Your task to perform on an android device: What's the weather going to be this weekend? Image 0: 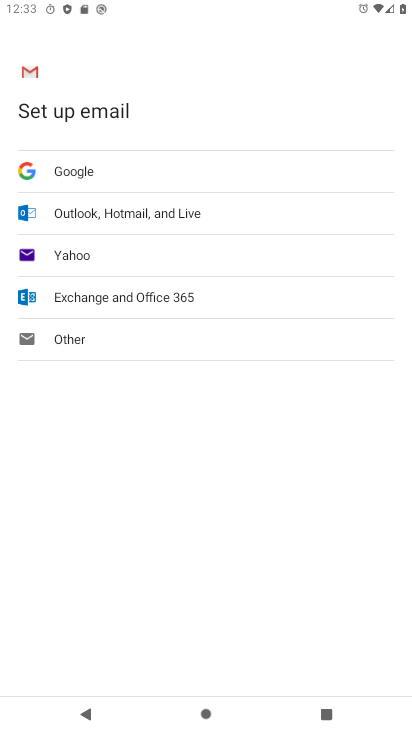
Step 0: press home button
Your task to perform on an android device: What's the weather going to be this weekend? Image 1: 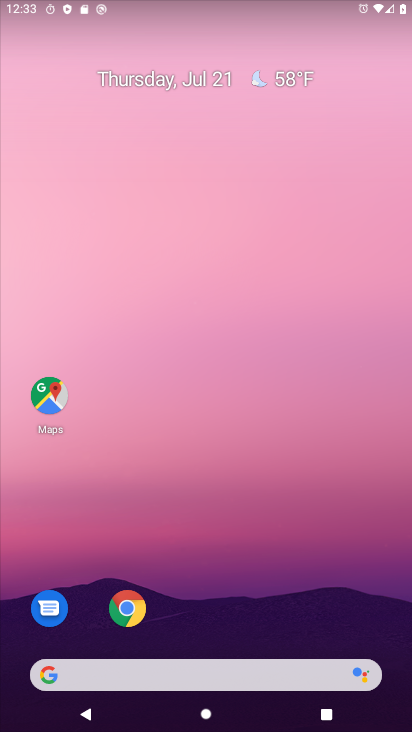
Step 1: drag from (209, 638) to (216, 6)
Your task to perform on an android device: What's the weather going to be this weekend? Image 2: 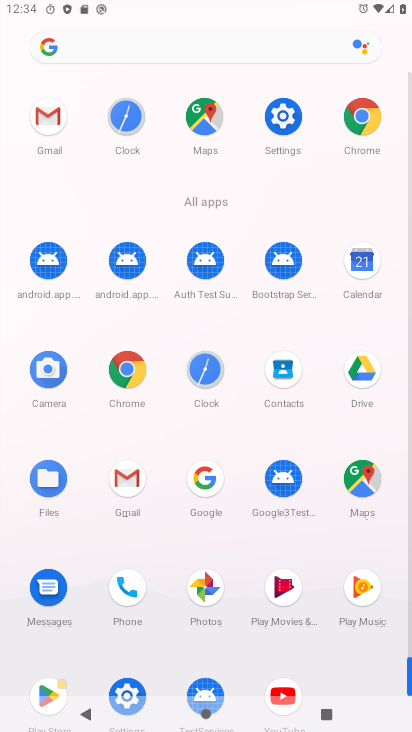
Step 2: press home button
Your task to perform on an android device: What's the weather going to be this weekend? Image 3: 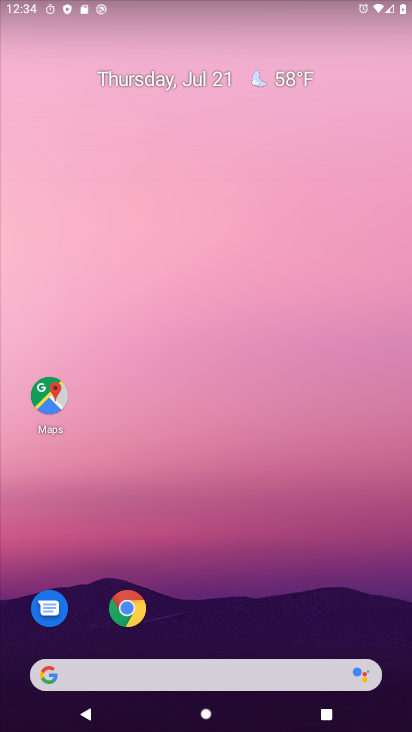
Step 3: click (292, 80)
Your task to perform on an android device: What's the weather going to be this weekend? Image 4: 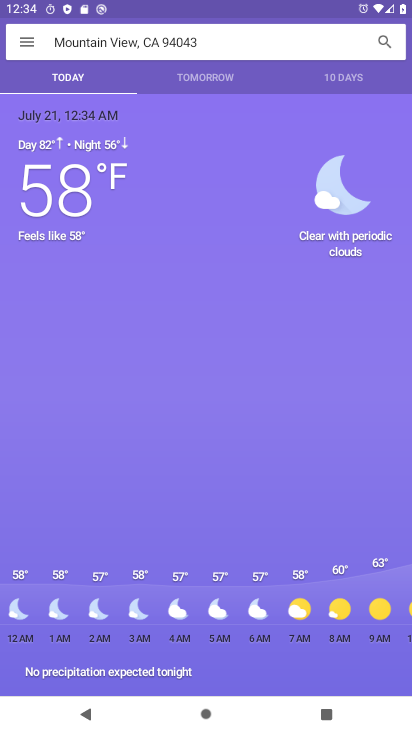
Step 4: click (347, 79)
Your task to perform on an android device: What's the weather going to be this weekend? Image 5: 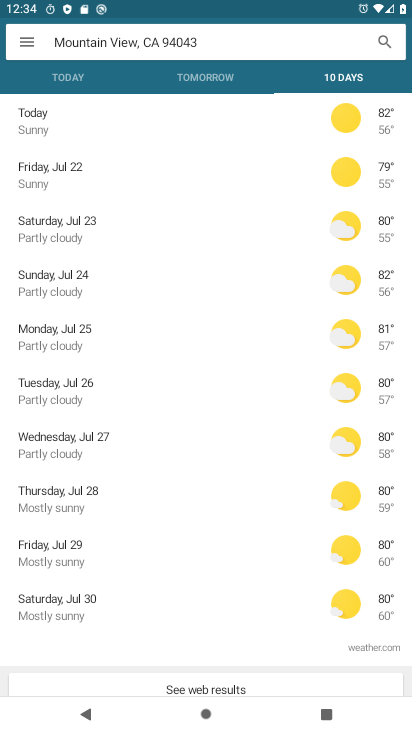
Step 5: click (77, 224)
Your task to perform on an android device: What's the weather going to be this weekend? Image 6: 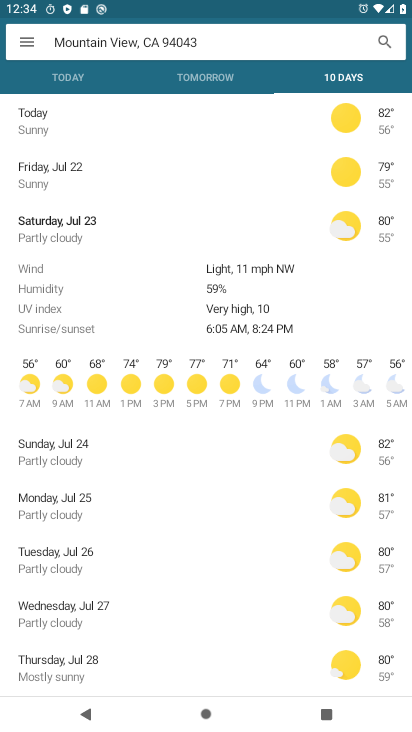
Step 6: click (92, 451)
Your task to perform on an android device: What's the weather going to be this weekend? Image 7: 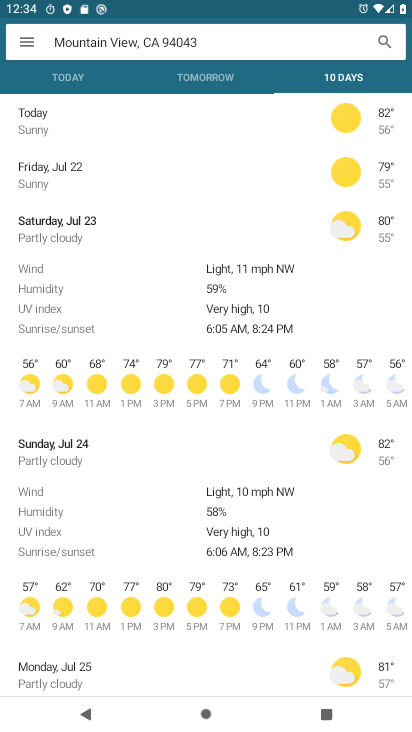
Step 7: task complete